Your task to perform on an android device: Open calendar and show me the second week of next month Image 0: 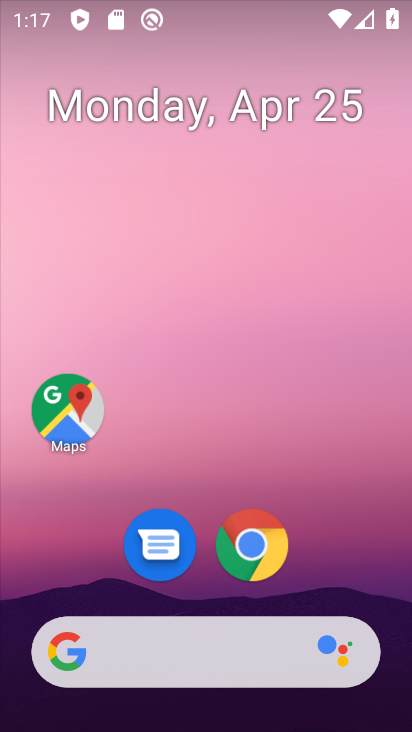
Step 0: drag from (309, 562) to (251, 52)
Your task to perform on an android device: Open calendar and show me the second week of next month Image 1: 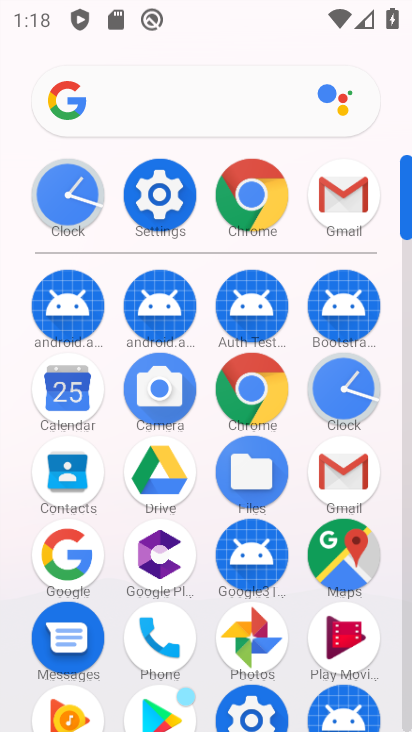
Step 1: click (69, 397)
Your task to perform on an android device: Open calendar and show me the second week of next month Image 2: 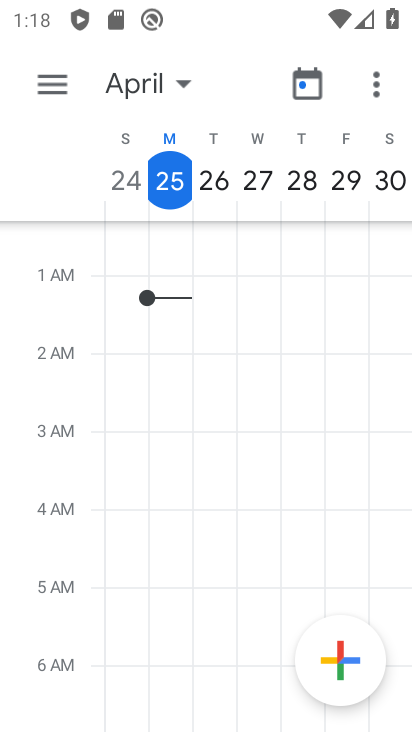
Step 2: click (179, 87)
Your task to perform on an android device: Open calendar and show me the second week of next month Image 3: 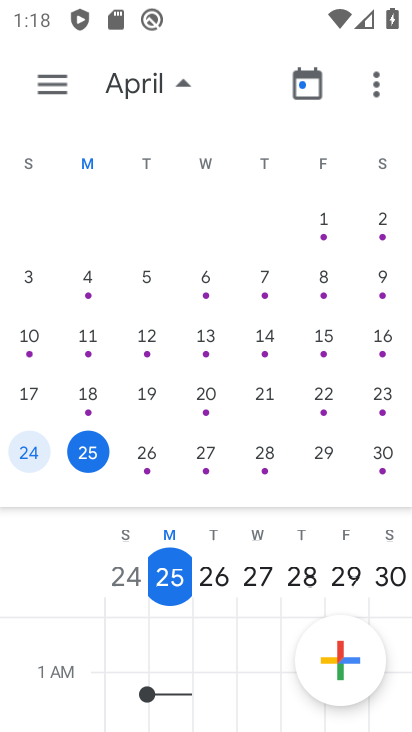
Step 3: drag from (349, 366) to (22, 319)
Your task to perform on an android device: Open calendar and show me the second week of next month Image 4: 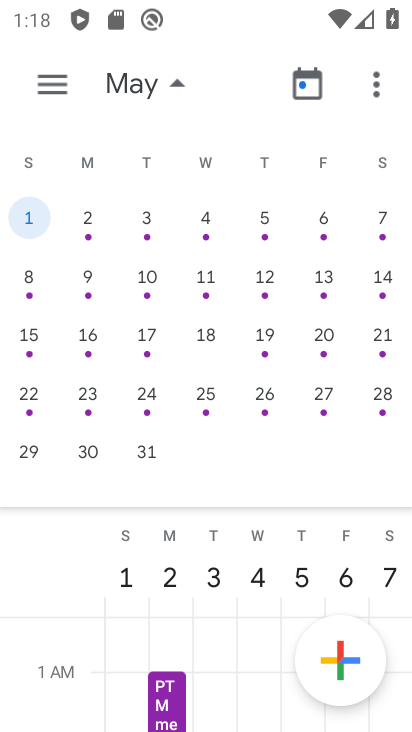
Step 4: click (32, 282)
Your task to perform on an android device: Open calendar and show me the second week of next month Image 5: 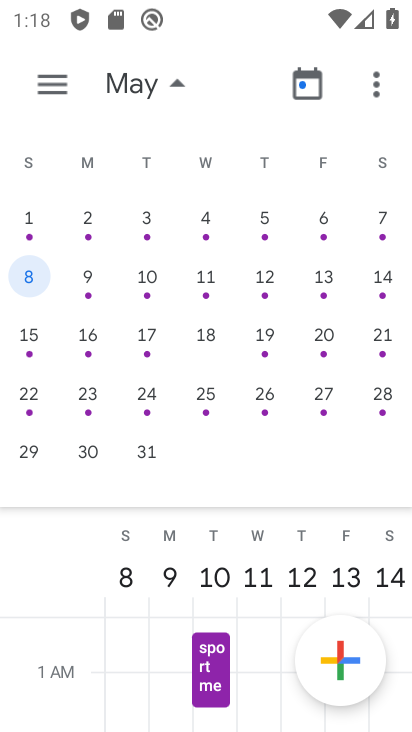
Step 5: task complete